Your task to perform on an android device: Open maps Image 0: 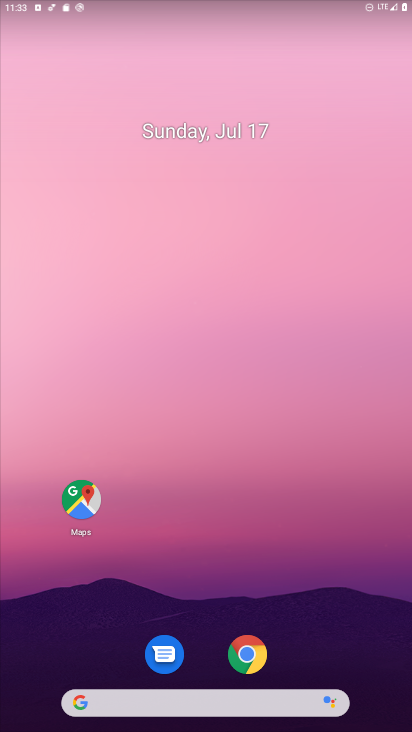
Step 0: click (103, 495)
Your task to perform on an android device: Open maps Image 1: 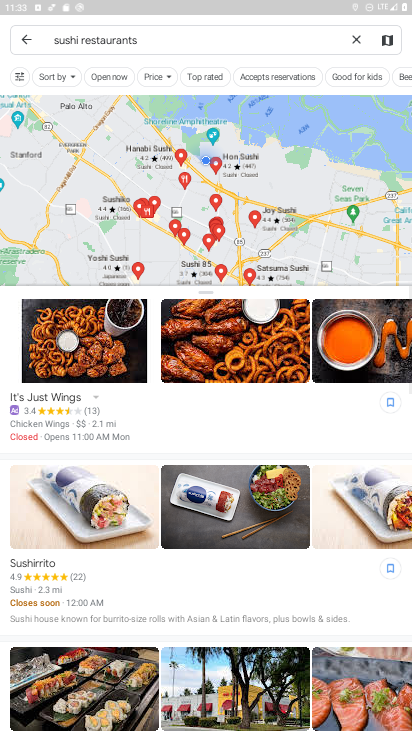
Step 1: task complete